Your task to perform on an android device: Toggle the flashlight Image 0: 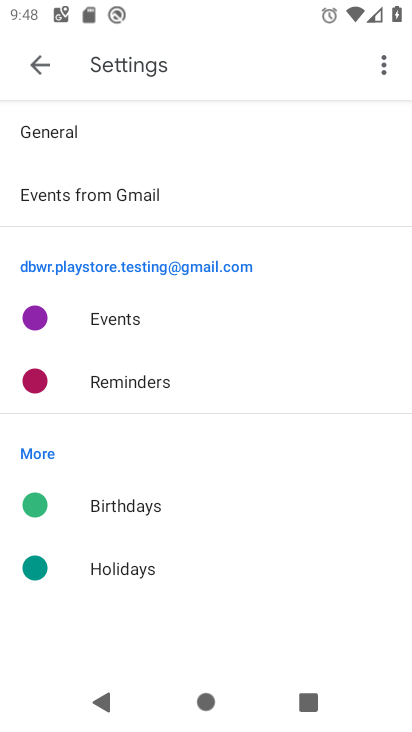
Step 0: press home button
Your task to perform on an android device: Toggle the flashlight Image 1: 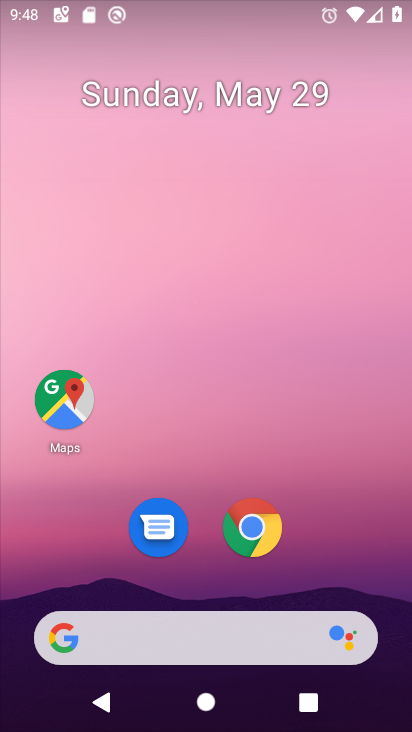
Step 1: drag from (206, 575) to (201, 104)
Your task to perform on an android device: Toggle the flashlight Image 2: 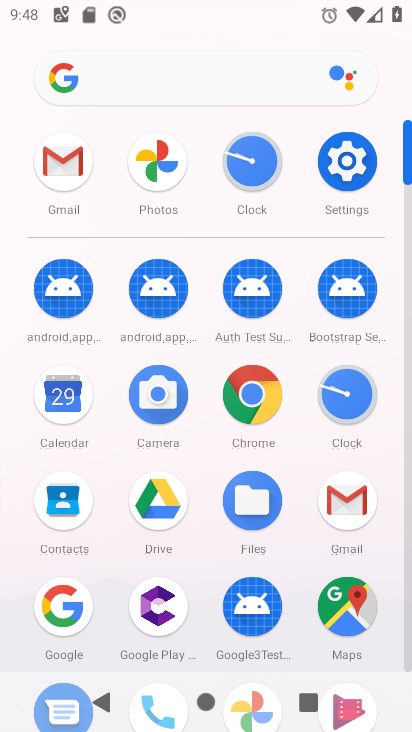
Step 2: click (351, 156)
Your task to perform on an android device: Toggle the flashlight Image 3: 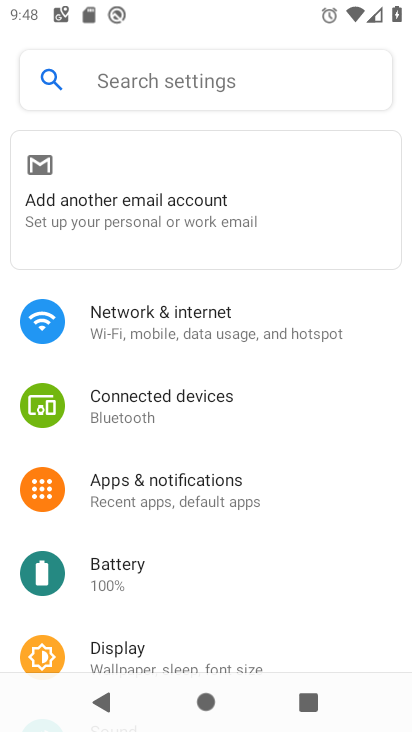
Step 3: click (176, 73)
Your task to perform on an android device: Toggle the flashlight Image 4: 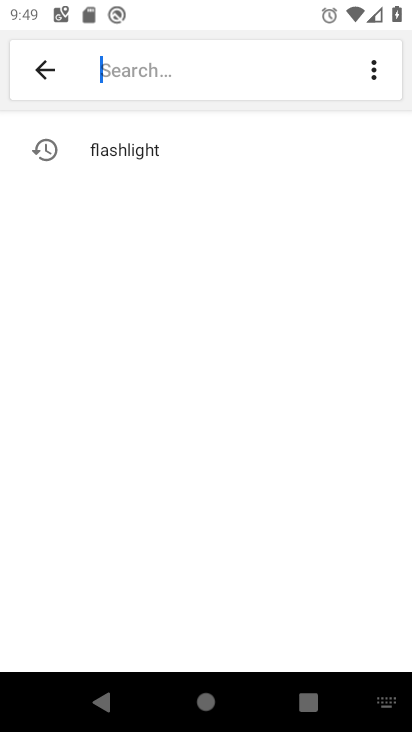
Step 4: click (163, 146)
Your task to perform on an android device: Toggle the flashlight Image 5: 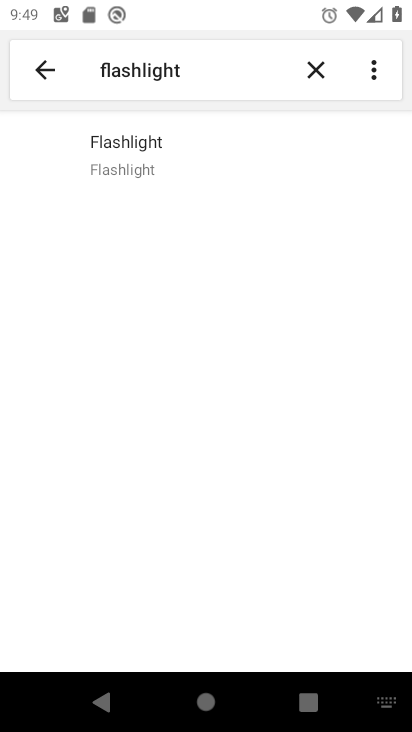
Step 5: click (205, 162)
Your task to perform on an android device: Toggle the flashlight Image 6: 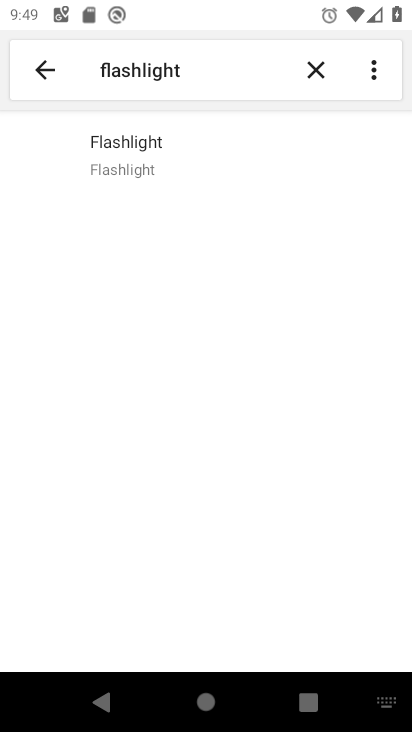
Step 6: task complete